Your task to perform on an android device: uninstall "Reddit" Image 0: 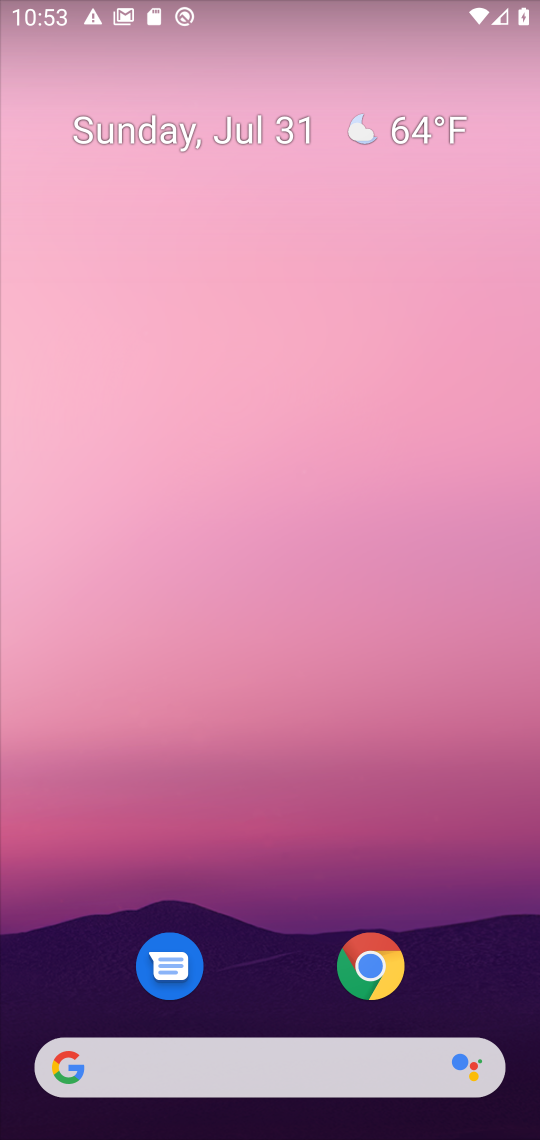
Step 0: drag from (314, 717) to (276, 0)
Your task to perform on an android device: uninstall "Reddit" Image 1: 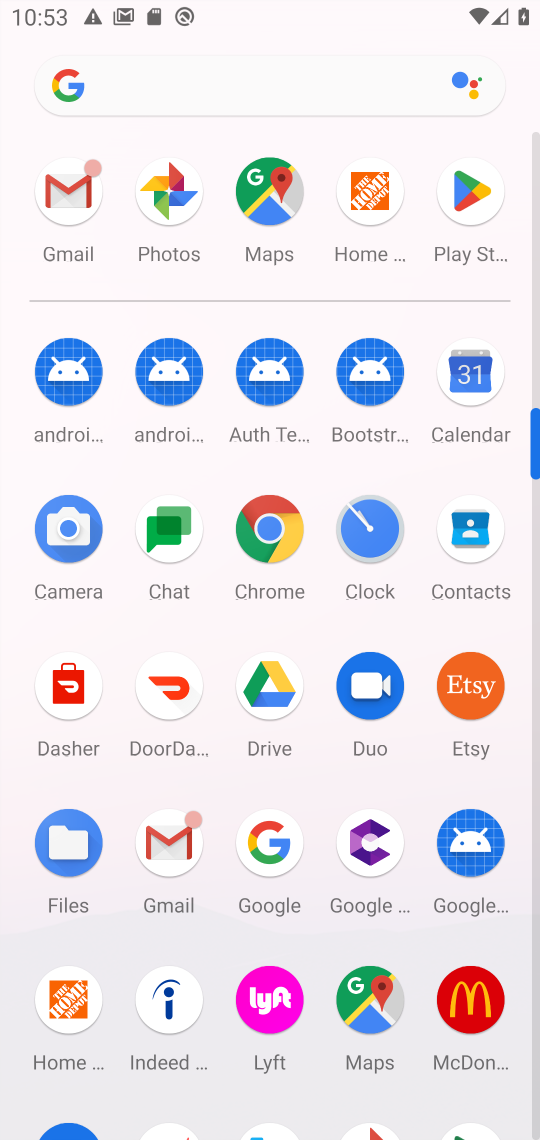
Step 1: click (490, 202)
Your task to perform on an android device: uninstall "Reddit" Image 2: 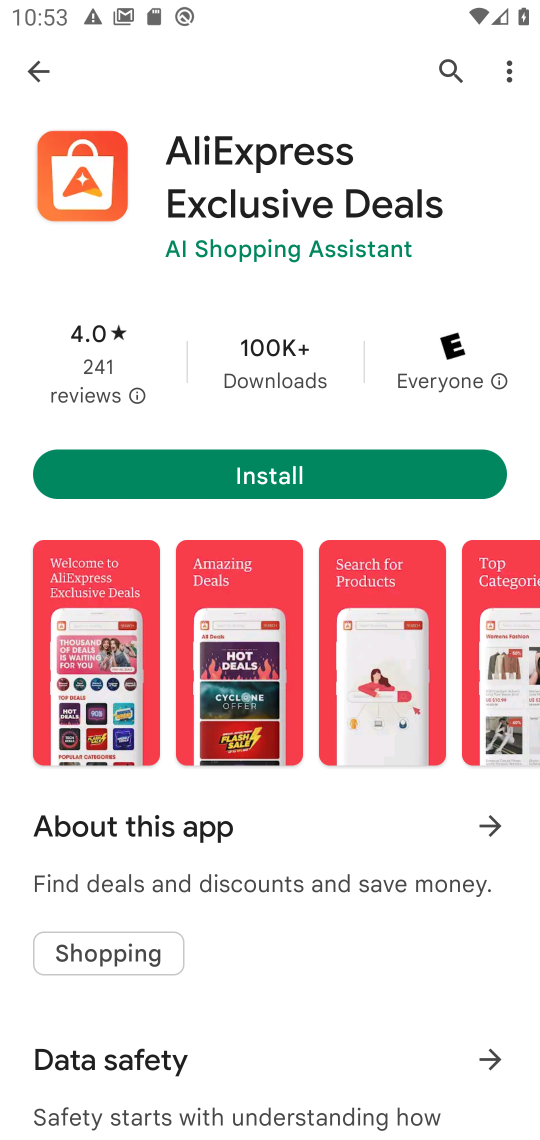
Step 2: click (45, 61)
Your task to perform on an android device: uninstall "Reddit" Image 3: 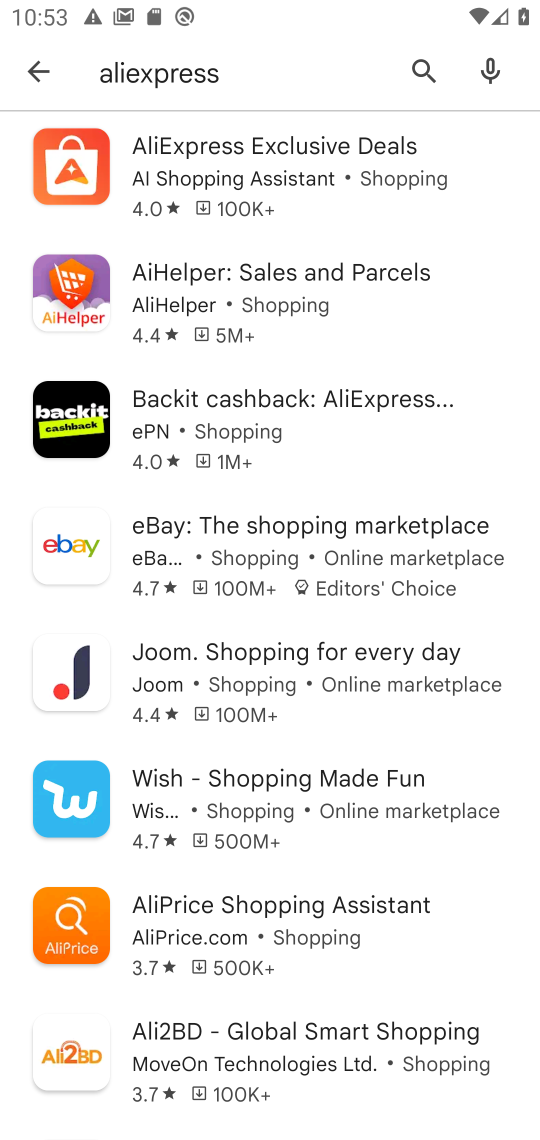
Step 3: click (232, 75)
Your task to perform on an android device: uninstall "Reddit" Image 4: 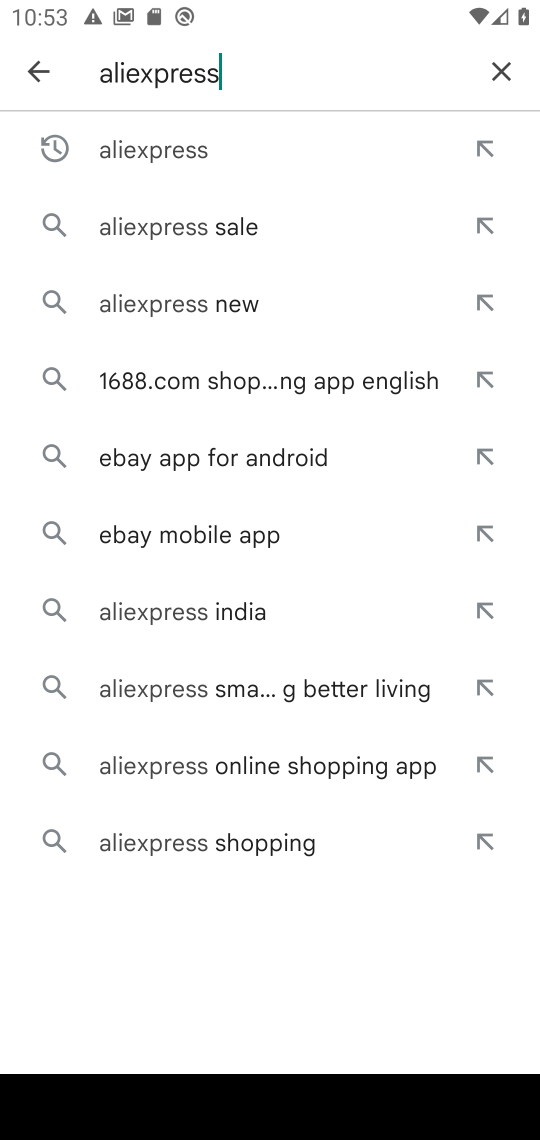
Step 4: click (501, 69)
Your task to perform on an android device: uninstall "Reddit" Image 5: 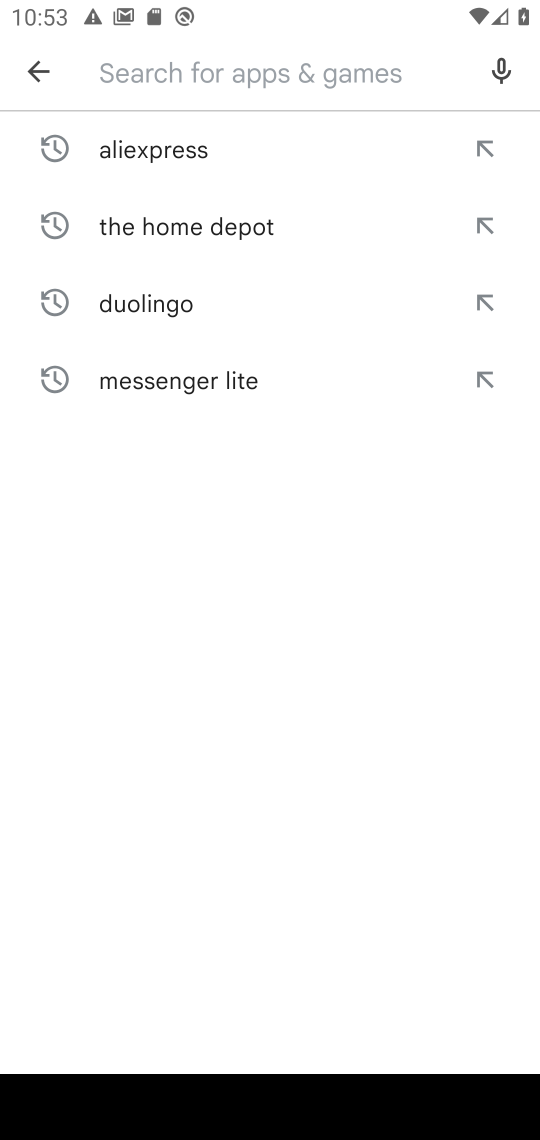
Step 5: type "reddit"
Your task to perform on an android device: uninstall "Reddit" Image 6: 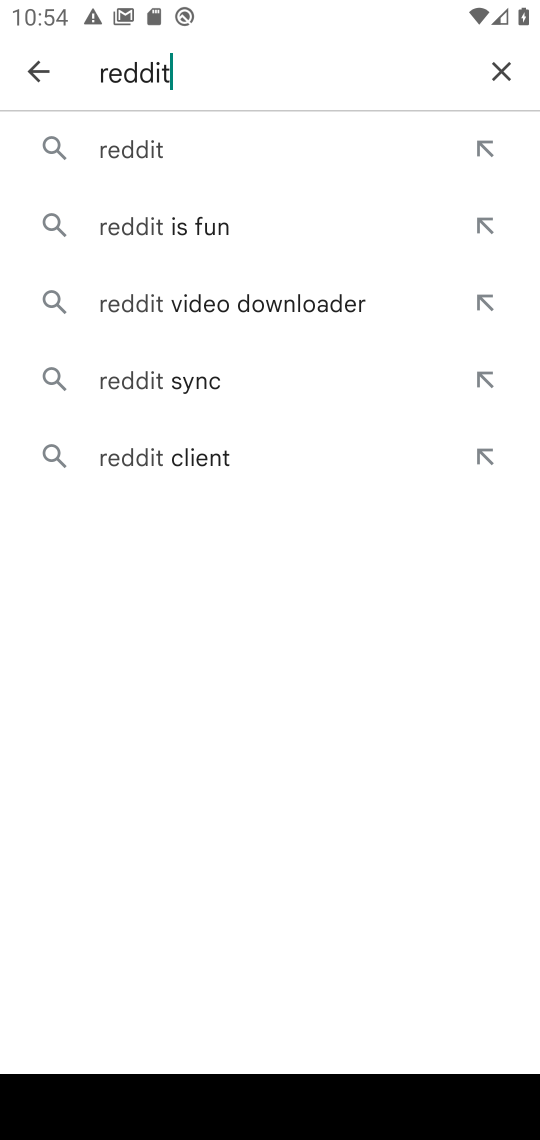
Step 6: click (137, 153)
Your task to perform on an android device: uninstall "Reddit" Image 7: 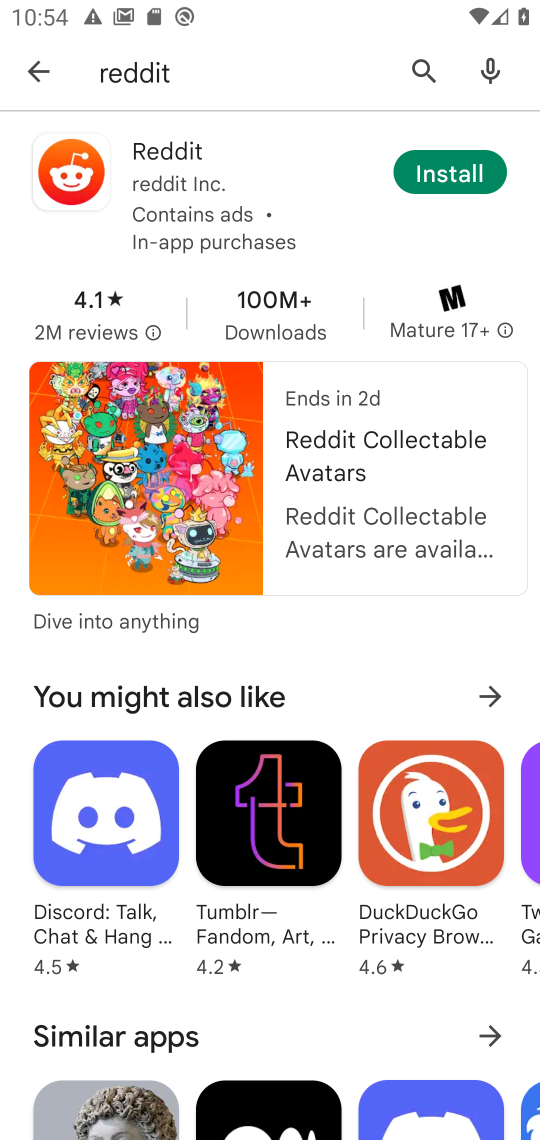
Step 7: click (127, 181)
Your task to perform on an android device: uninstall "Reddit" Image 8: 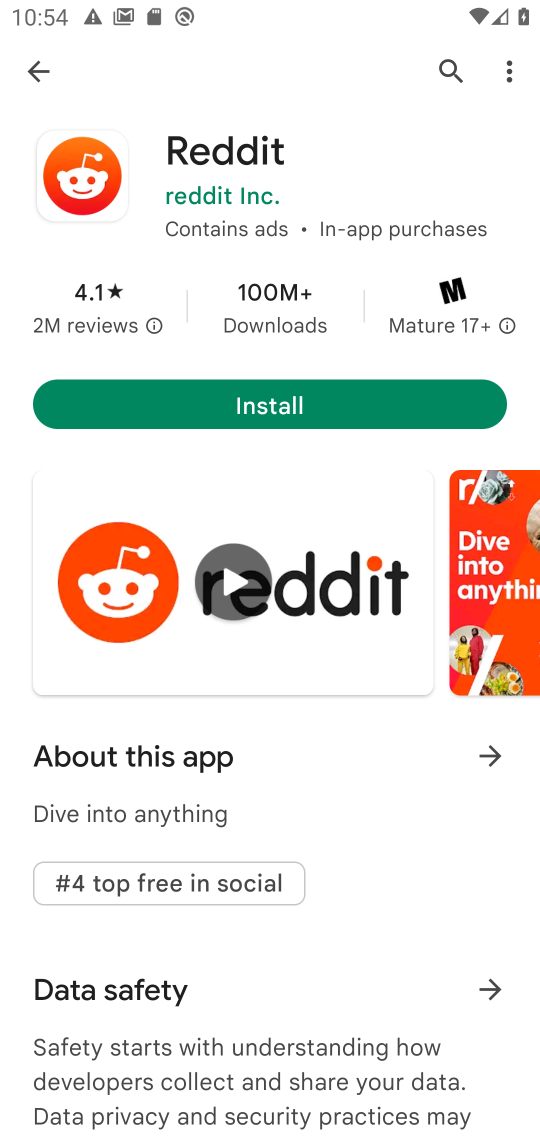
Step 8: task complete